Your task to perform on an android device: open wifi settings Image 0: 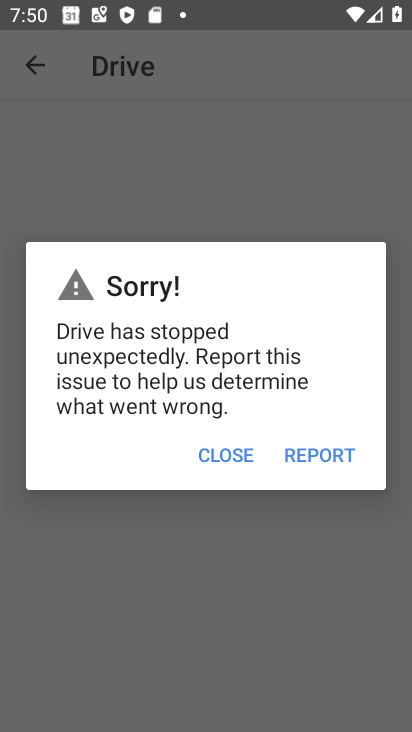
Step 0: press home button
Your task to perform on an android device: open wifi settings Image 1: 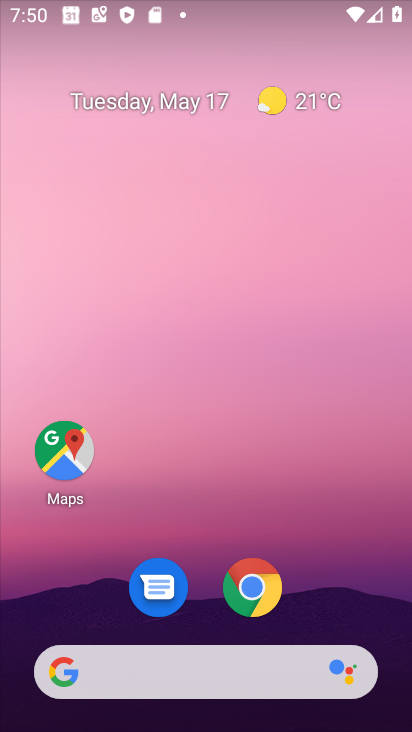
Step 1: drag from (374, 590) to (406, 405)
Your task to perform on an android device: open wifi settings Image 2: 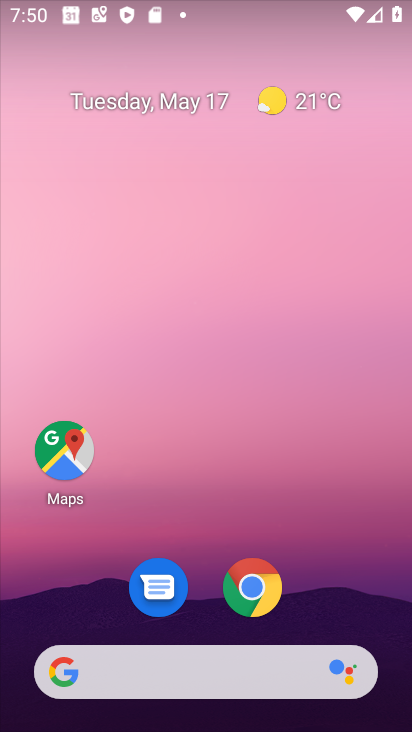
Step 2: drag from (298, 382) to (357, 55)
Your task to perform on an android device: open wifi settings Image 3: 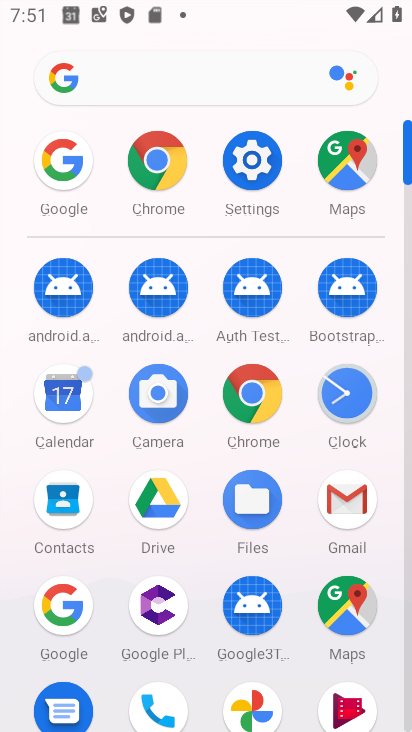
Step 3: click (259, 165)
Your task to perform on an android device: open wifi settings Image 4: 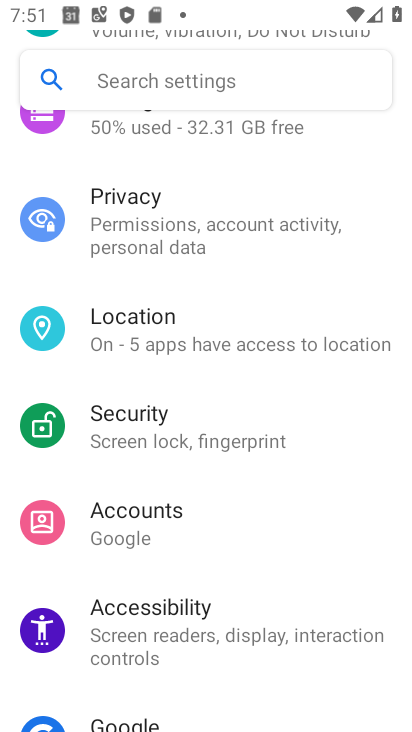
Step 4: drag from (322, 464) to (328, 393)
Your task to perform on an android device: open wifi settings Image 5: 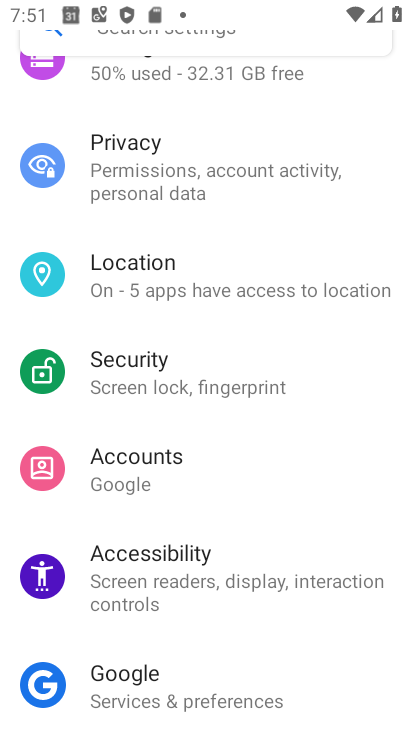
Step 5: drag from (354, 470) to (364, 376)
Your task to perform on an android device: open wifi settings Image 6: 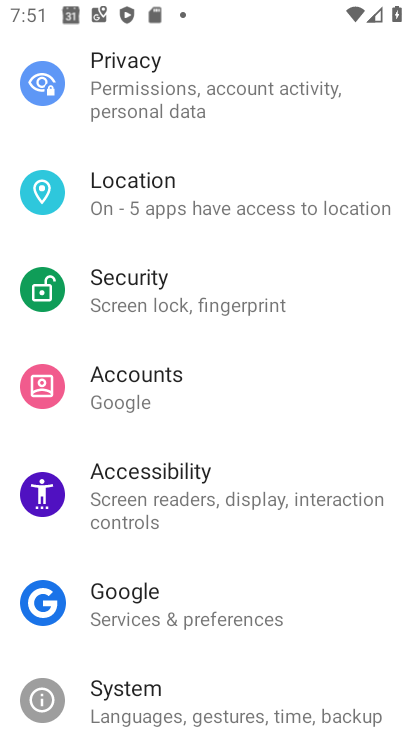
Step 6: drag from (356, 419) to (373, 381)
Your task to perform on an android device: open wifi settings Image 7: 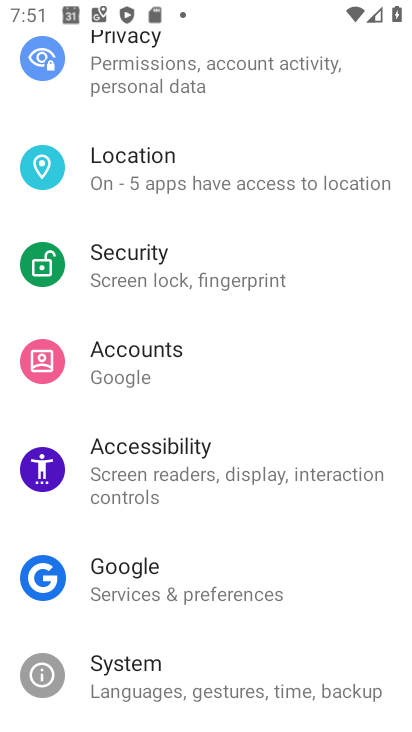
Step 7: click (375, 402)
Your task to perform on an android device: open wifi settings Image 8: 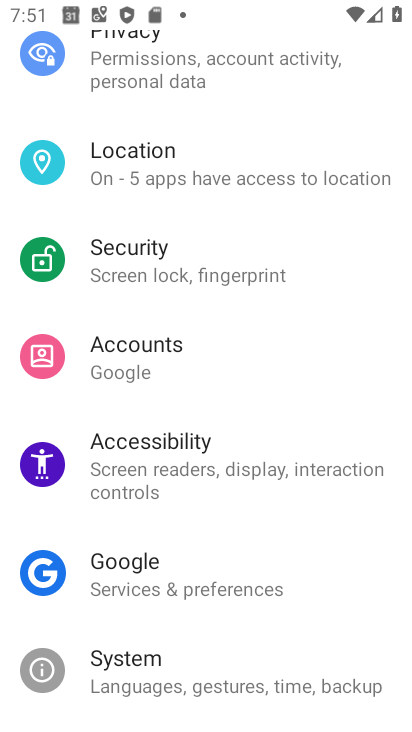
Step 8: drag from (377, 509) to (406, 421)
Your task to perform on an android device: open wifi settings Image 9: 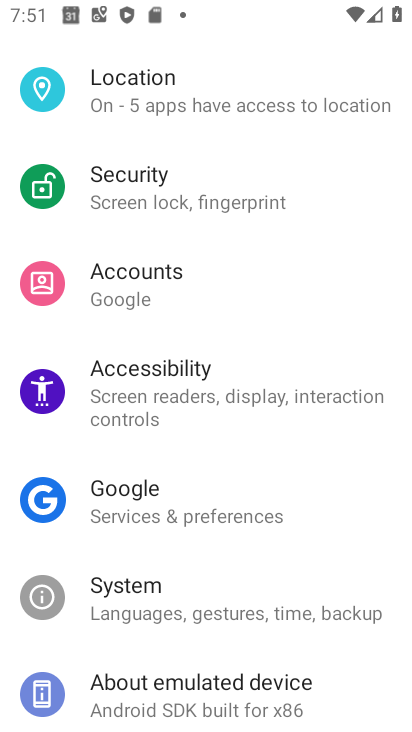
Step 9: drag from (394, 526) to (407, 464)
Your task to perform on an android device: open wifi settings Image 10: 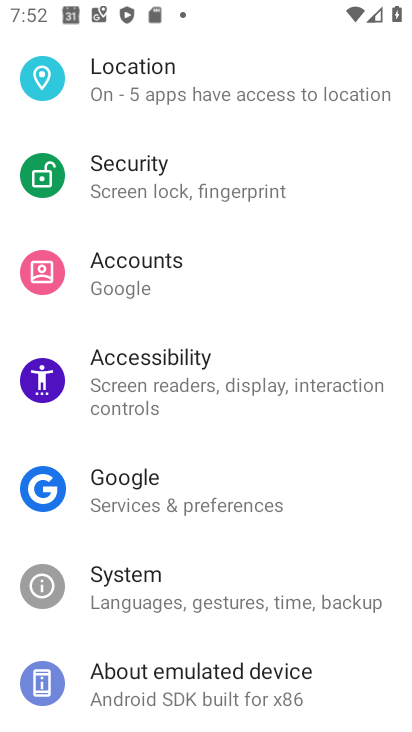
Step 10: drag from (361, 503) to (389, 320)
Your task to perform on an android device: open wifi settings Image 11: 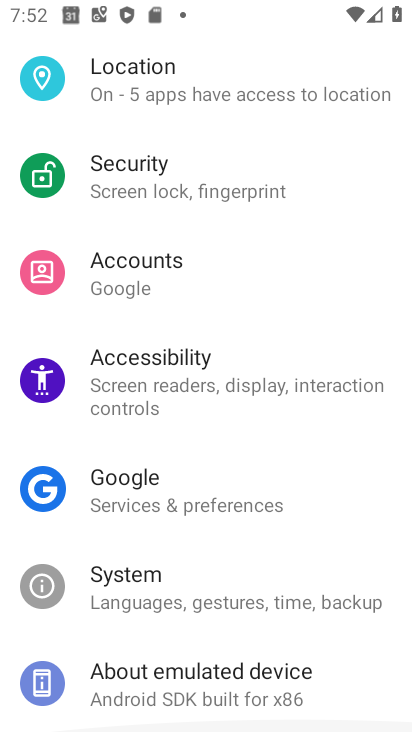
Step 11: drag from (391, 263) to (369, 470)
Your task to perform on an android device: open wifi settings Image 12: 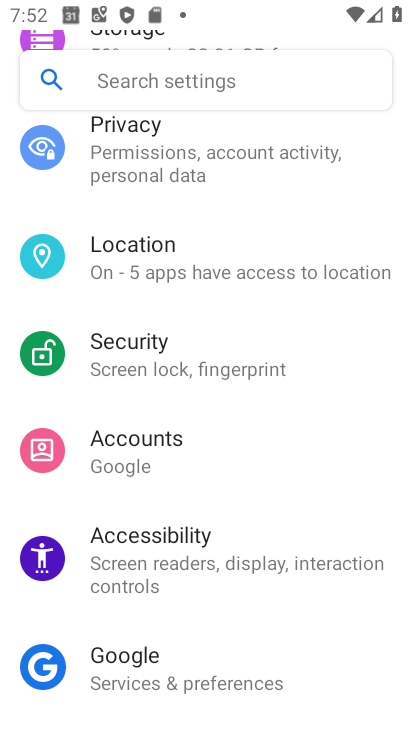
Step 12: drag from (376, 309) to (360, 455)
Your task to perform on an android device: open wifi settings Image 13: 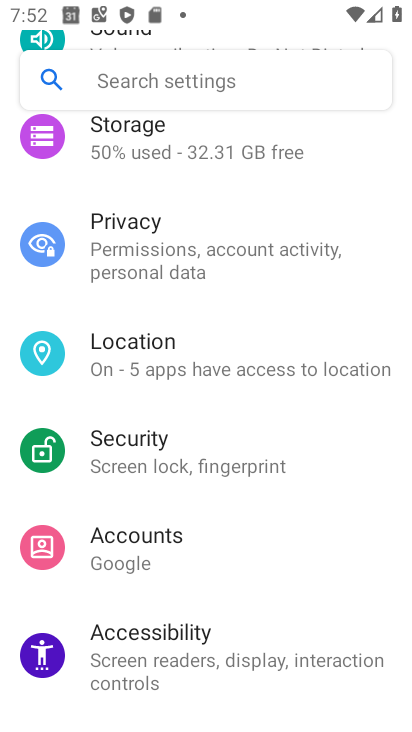
Step 13: drag from (380, 279) to (345, 443)
Your task to perform on an android device: open wifi settings Image 14: 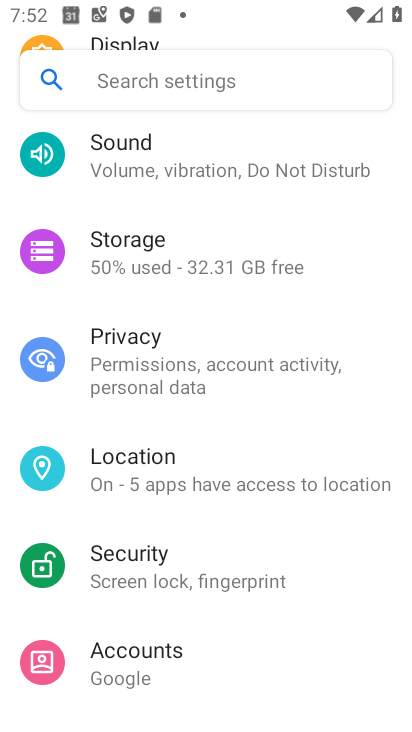
Step 14: drag from (360, 290) to (343, 418)
Your task to perform on an android device: open wifi settings Image 15: 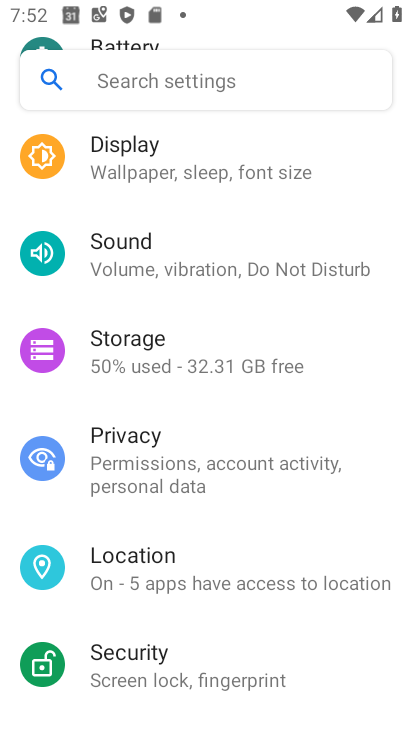
Step 15: drag from (362, 320) to (356, 417)
Your task to perform on an android device: open wifi settings Image 16: 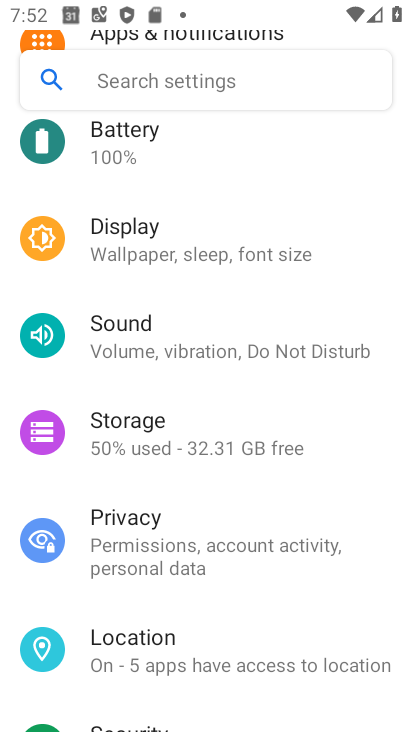
Step 16: drag from (355, 274) to (343, 375)
Your task to perform on an android device: open wifi settings Image 17: 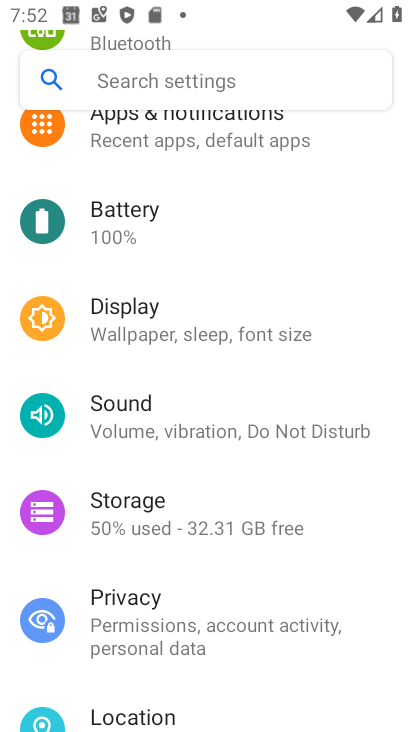
Step 17: click (359, 332)
Your task to perform on an android device: open wifi settings Image 18: 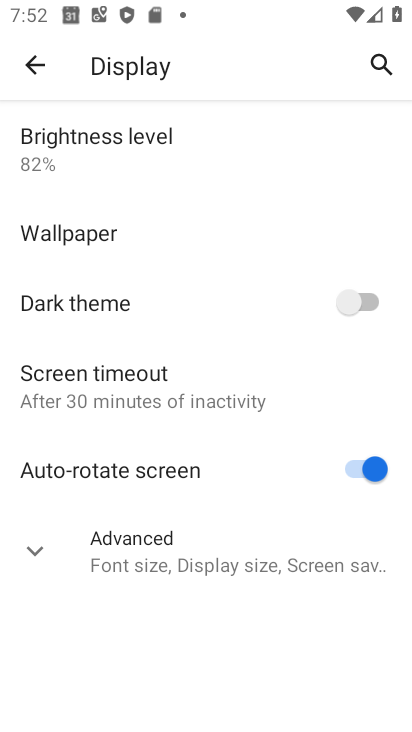
Step 18: click (364, 299)
Your task to perform on an android device: open wifi settings Image 19: 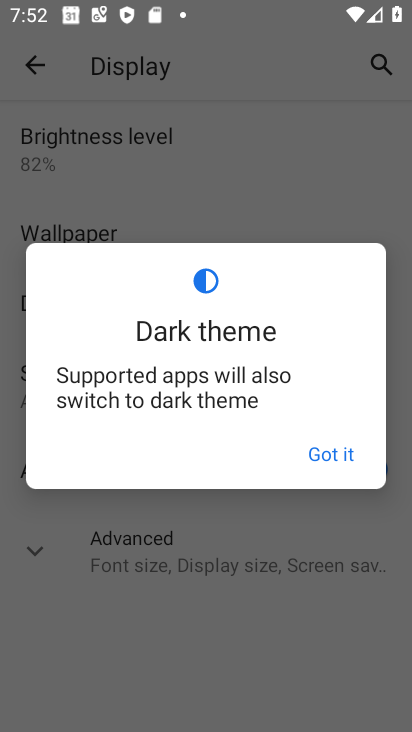
Step 19: click (366, 308)
Your task to perform on an android device: open wifi settings Image 20: 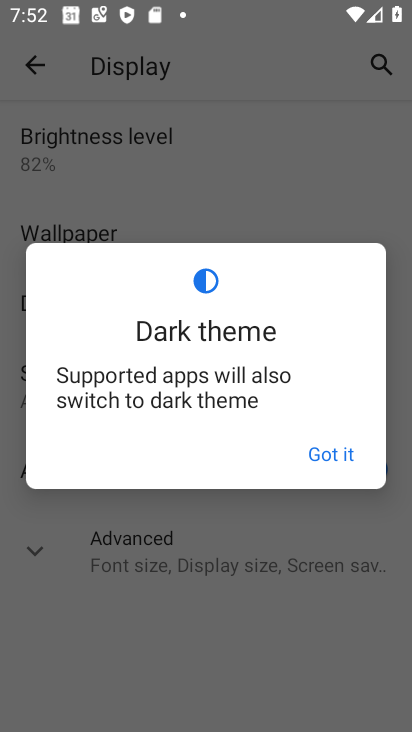
Step 20: task complete